Your task to perform on an android device: Go to display settings Image 0: 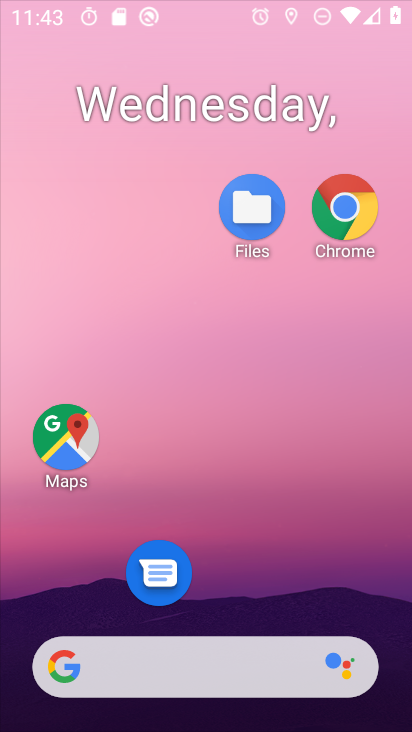
Step 0: press home button
Your task to perform on an android device: Go to display settings Image 1: 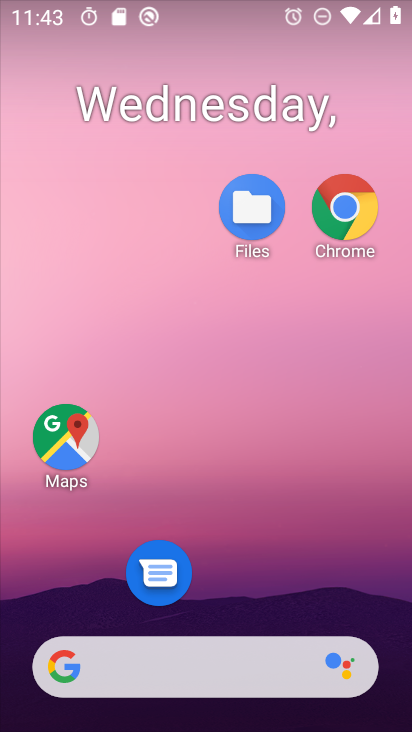
Step 1: drag from (270, 624) to (272, 120)
Your task to perform on an android device: Go to display settings Image 2: 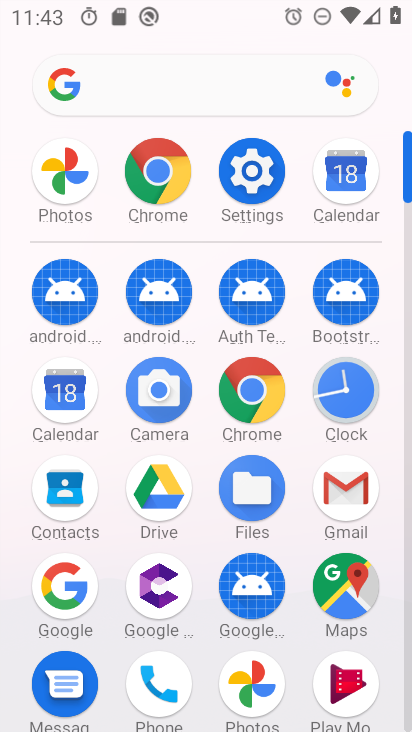
Step 2: click (257, 177)
Your task to perform on an android device: Go to display settings Image 3: 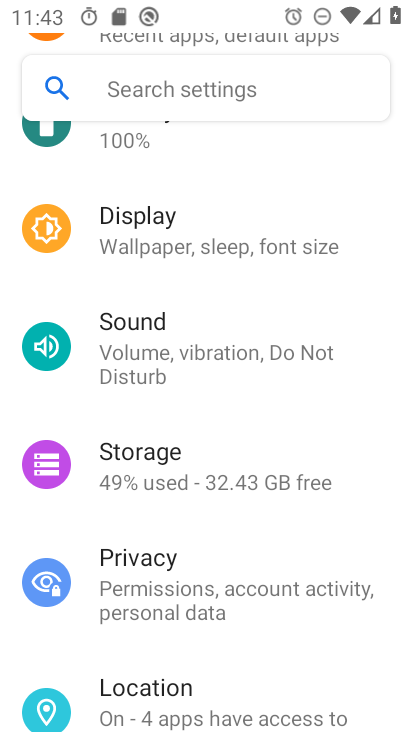
Step 3: click (217, 262)
Your task to perform on an android device: Go to display settings Image 4: 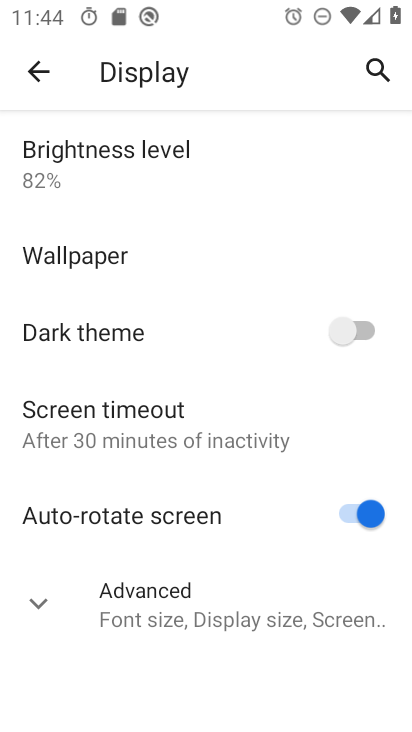
Step 4: task complete